Your task to perform on an android device: turn off sleep mode Image 0: 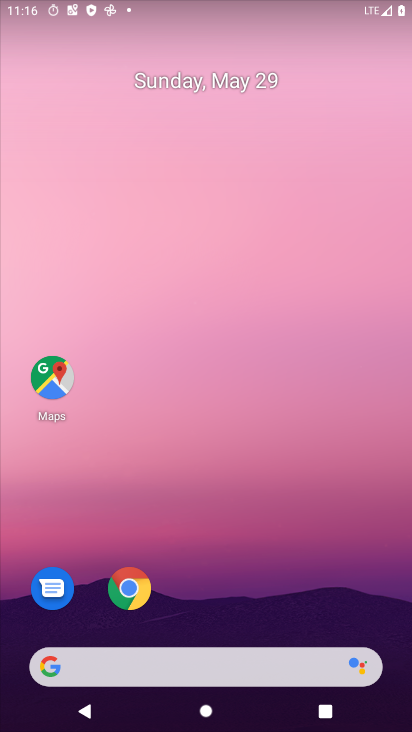
Step 0: drag from (222, 614) to (247, 177)
Your task to perform on an android device: turn off sleep mode Image 1: 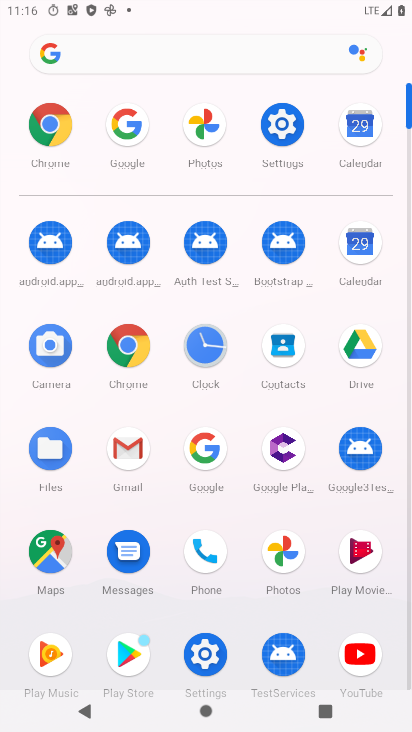
Step 1: click (222, 655)
Your task to perform on an android device: turn off sleep mode Image 2: 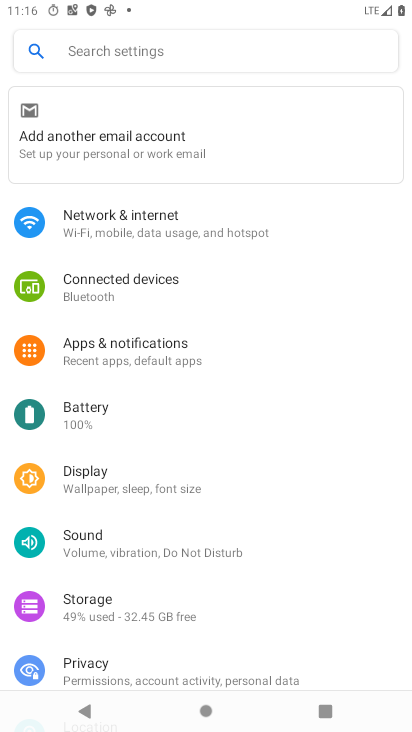
Step 2: task complete